Your task to perform on an android device: open app "Grab" (install if not already installed) Image 0: 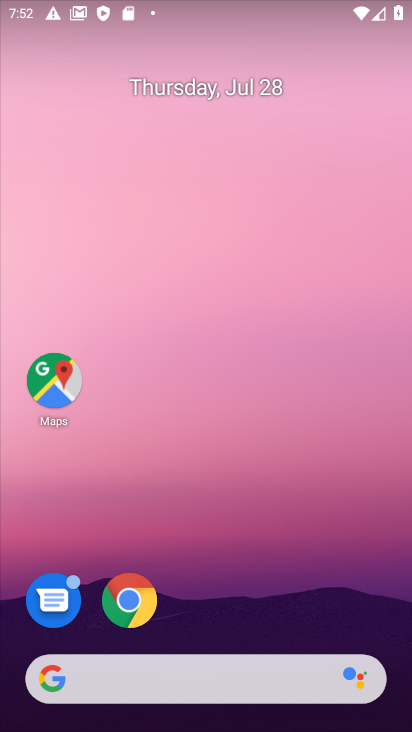
Step 0: drag from (203, 687) to (280, 82)
Your task to perform on an android device: open app "Grab" (install if not already installed) Image 1: 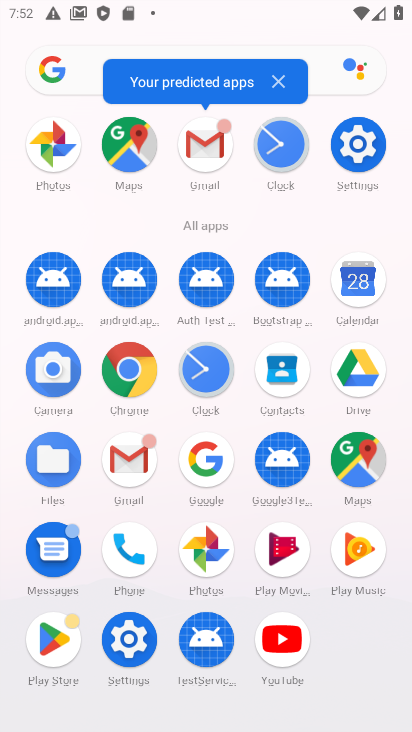
Step 1: click (53, 644)
Your task to perform on an android device: open app "Grab" (install if not already installed) Image 2: 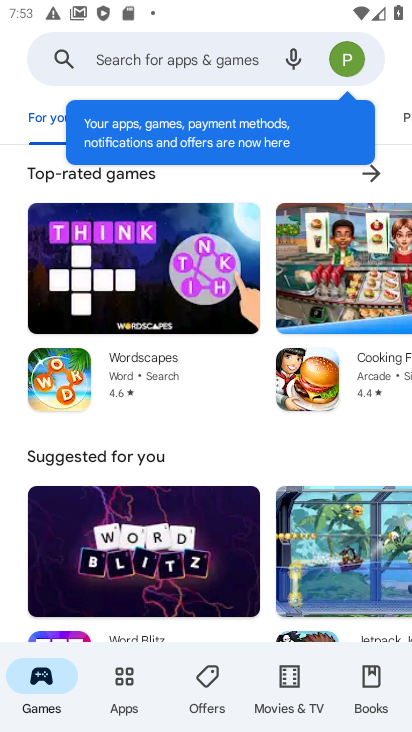
Step 2: type "Grab"
Your task to perform on an android device: open app "Grab" (install if not already installed) Image 3: 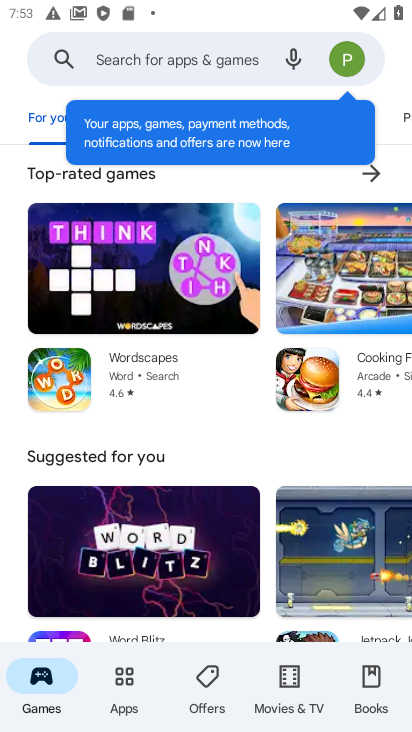
Step 3: click (108, 55)
Your task to perform on an android device: open app "Grab" (install if not already installed) Image 4: 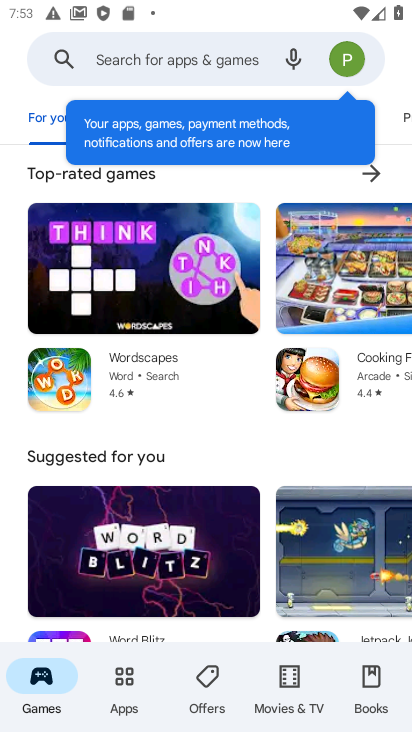
Step 4: click (107, 59)
Your task to perform on an android device: open app "Grab" (install if not already installed) Image 5: 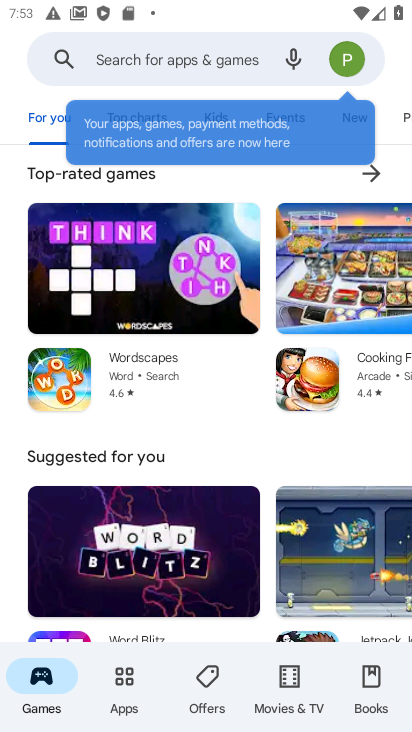
Step 5: click (139, 54)
Your task to perform on an android device: open app "Grab" (install if not already installed) Image 6: 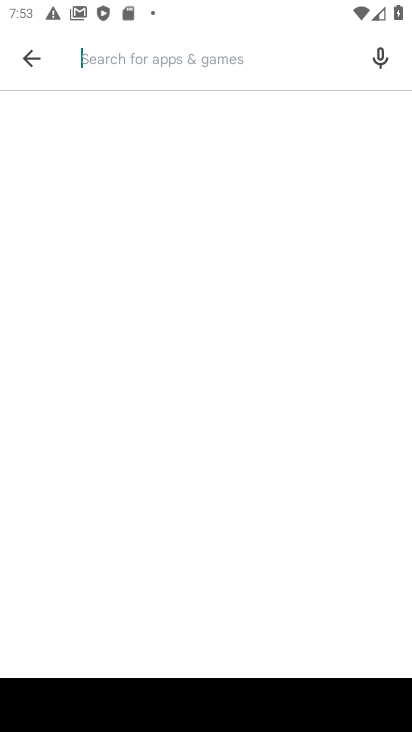
Step 6: type "Grab"
Your task to perform on an android device: open app "Grab" (install if not already installed) Image 7: 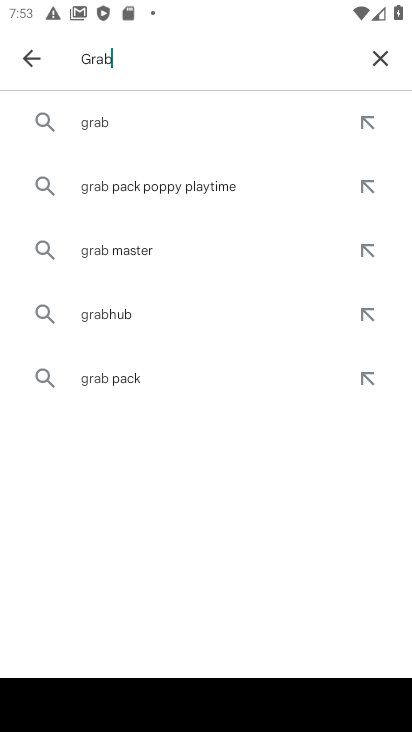
Step 7: click (103, 125)
Your task to perform on an android device: open app "Grab" (install if not already installed) Image 8: 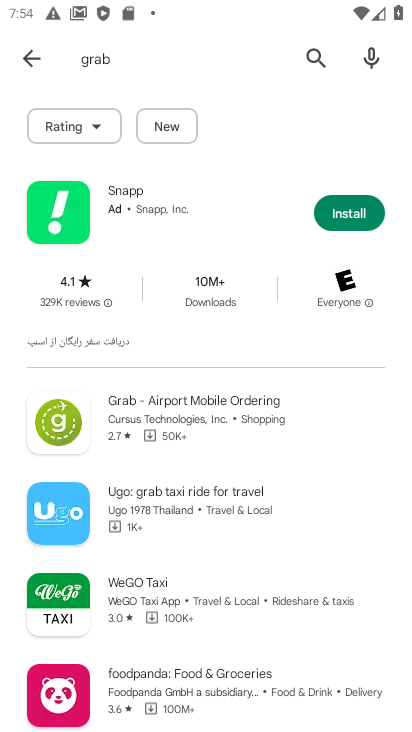
Step 8: click (192, 406)
Your task to perform on an android device: open app "Grab" (install if not already installed) Image 9: 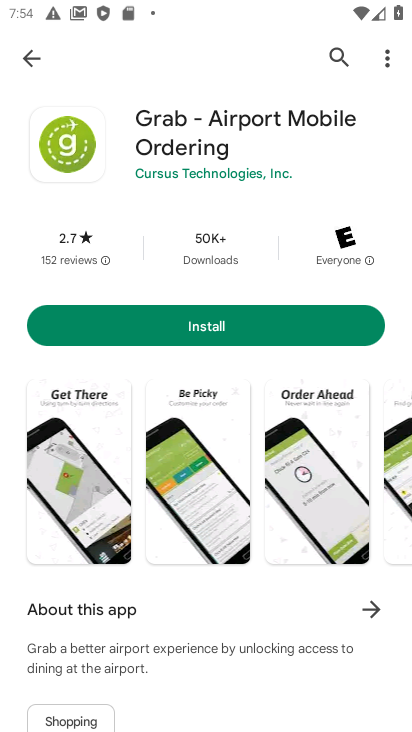
Step 9: click (216, 328)
Your task to perform on an android device: open app "Grab" (install if not already installed) Image 10: 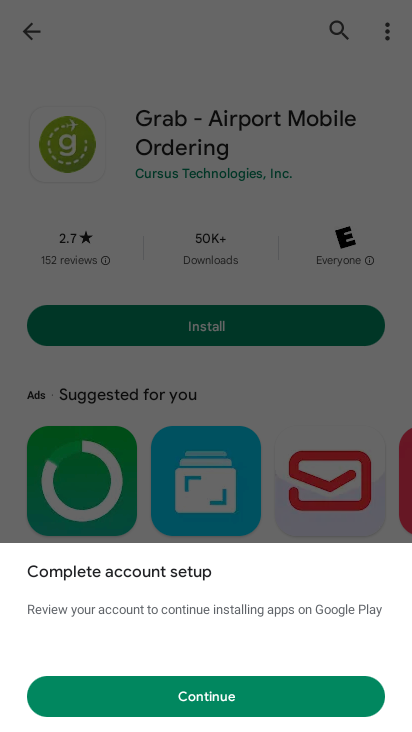
Step 10: click (219, 695)
Your task to perform on an android device: open app "Grab" (install if not already installed) Image 11: 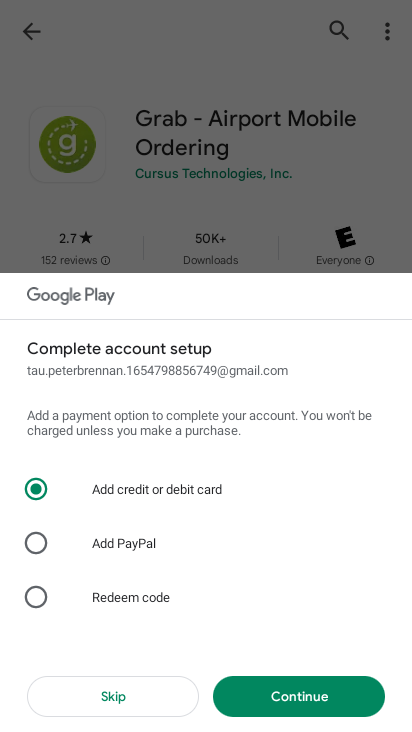
Step 11: click (110, 699)
Your task to perform on an android device: open app "Grab" (install if not already installed) Image 12: 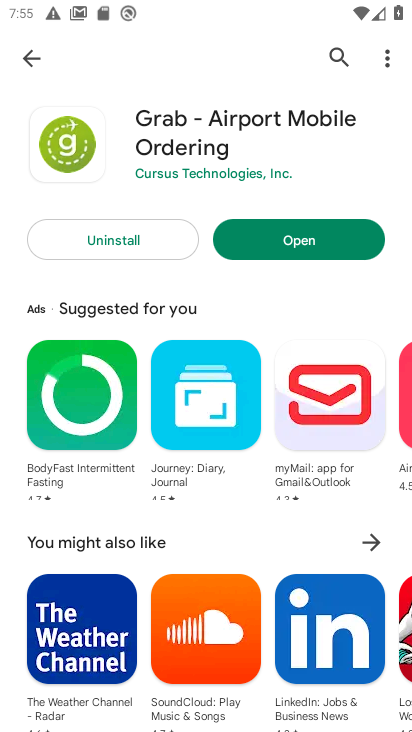
Step 12: click (277, 236)
Your task to perform on an android device: open app "Grab" (install if not already installed) Image 13: 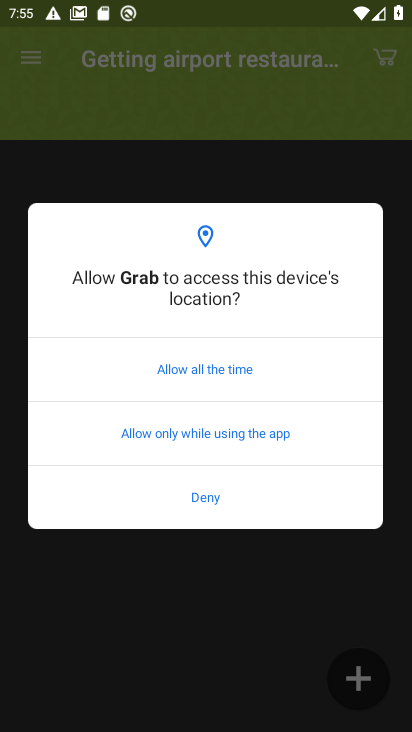
Step 13: click (307, 381)
Your task to perform on an android device: open app "Grab" (install if not already installed) Image 14: 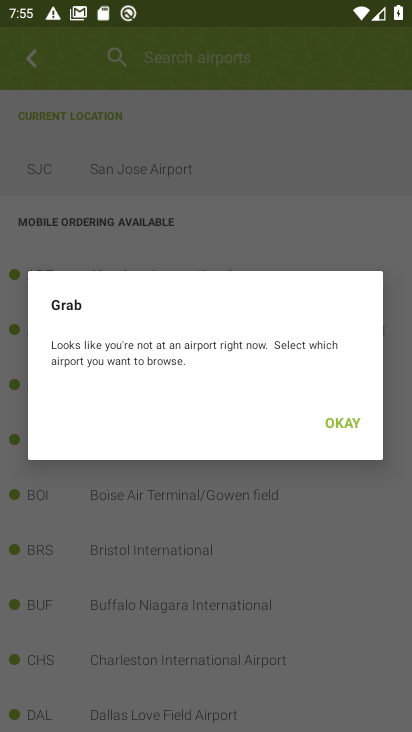
Step 14: click (362, 423)
Your task to perform on an android device: open app "Grab" (install if not already installed) Image 15: 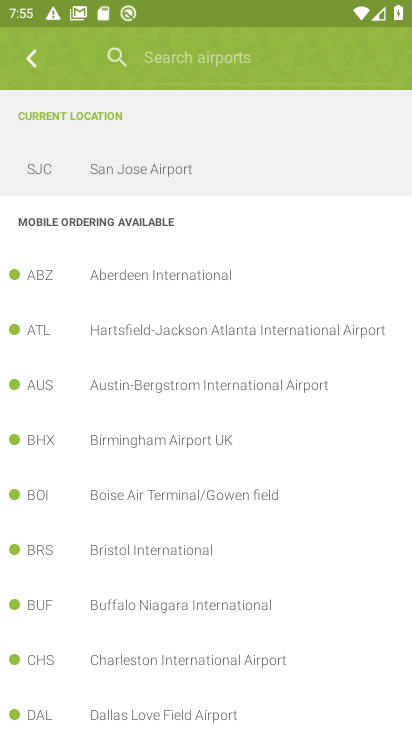
Step 15: task complete